Your task to perform on an android device: open chrome and create a bookmark for the current page Image 0: 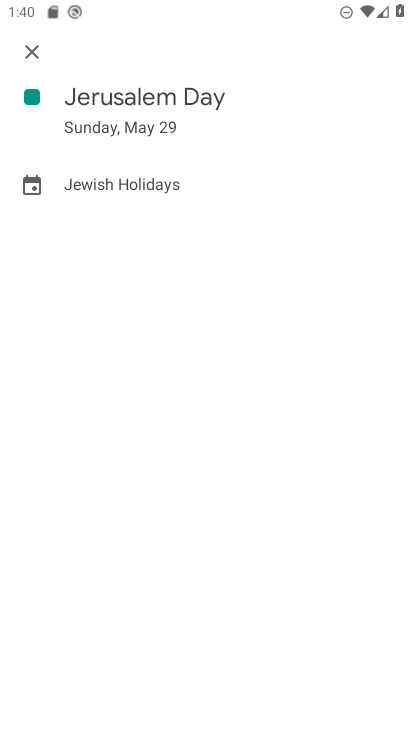
Step 0: press home button
Your task to perform on an android device: open chrome and create a bookmark for the current page Image 1: 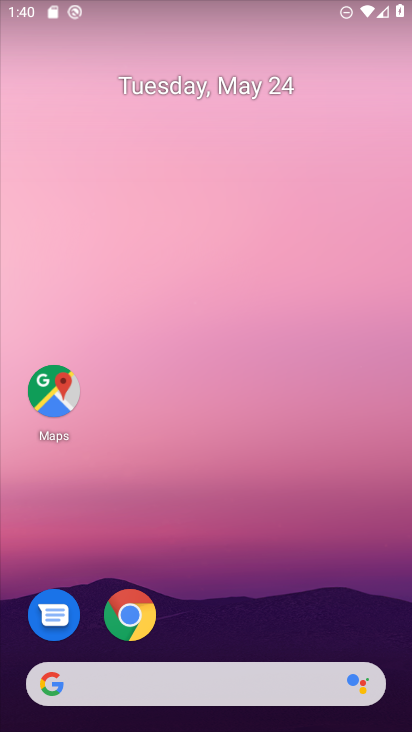
Step 1: click (130, 623)
Your task to perform on an android device: open chrome and create a bookmark for the current page Image 2: 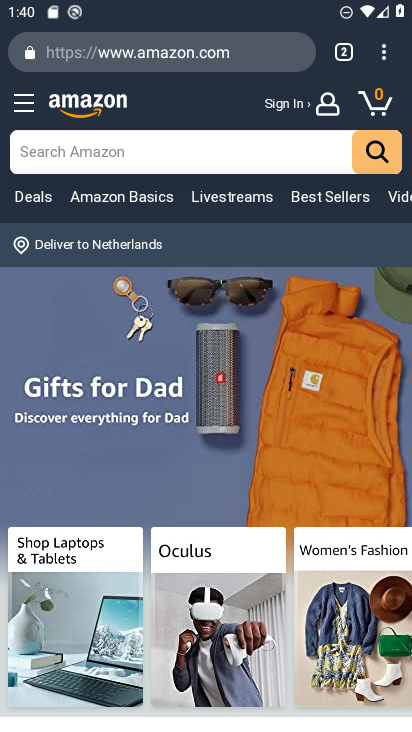
Step 2: task complete